Your task to perform on an android device: Go to Wikipedia Image 0: 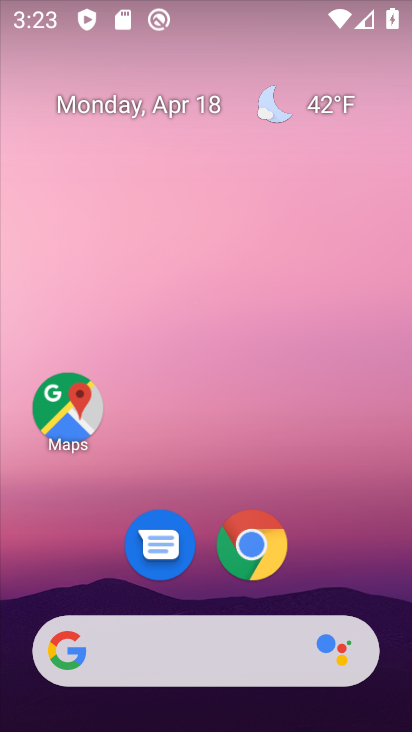
Step 0: drag from (307, 572) to (296, 97)
Your task to perform on an android device: Go to Wikipedia Image 1: 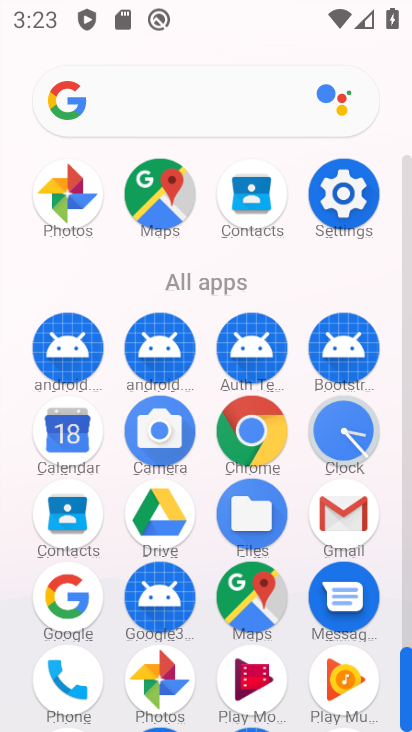
Step 1: click (249, 436)
Your task to perform on an android device: Go to Wikipedia Image 2: 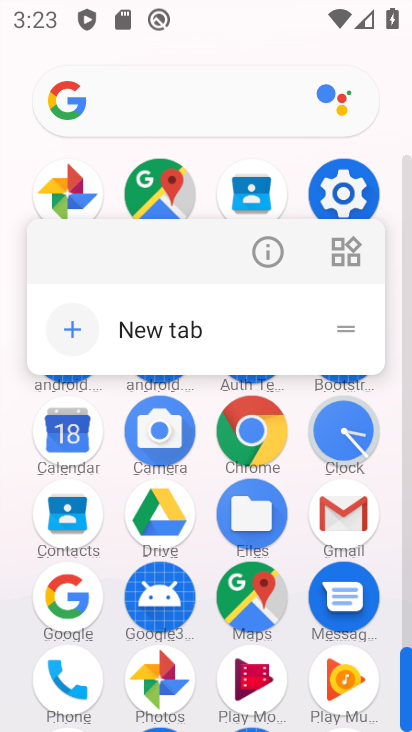
Step 2: click (248, 436)
Your task to perform on an android device: Go to Wikipedia Image 3: 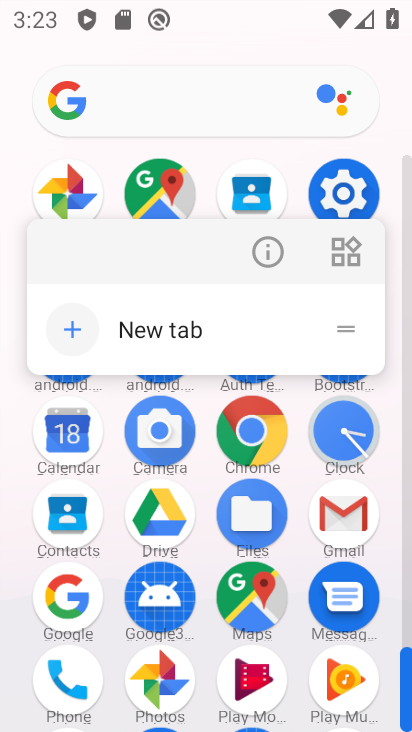
Step 3: click (248, 436)
Your task to perform on an android device: Go to Wikipedia Image 4: 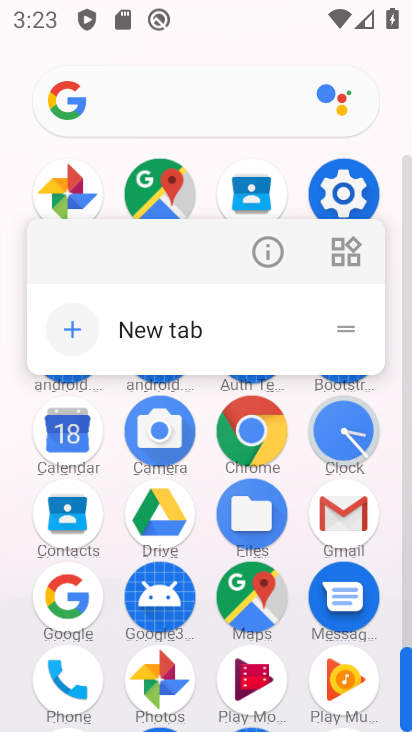
Step 4: click (273, 437)
Your task to perform on an android device: Go to Wikipedia Image 5: 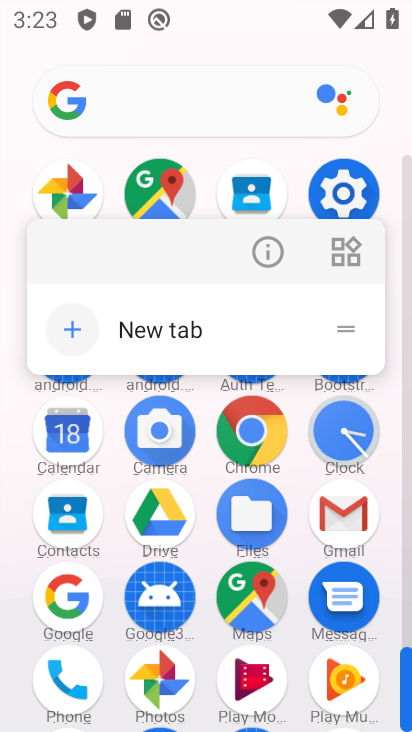
Step 5: click (254, 435)
Your task to perform on an android device: Go to Wikipedia Image 6: 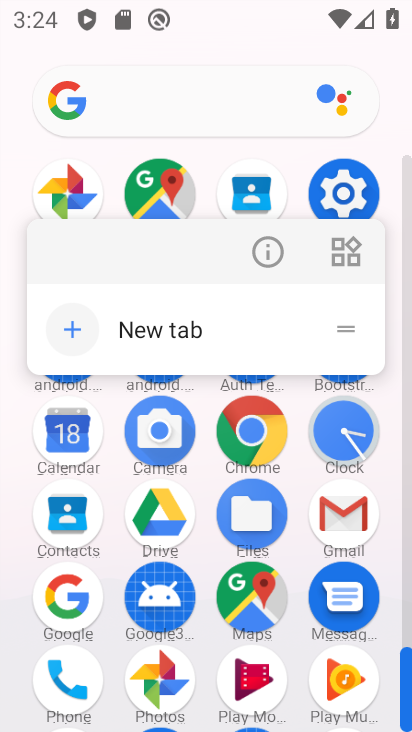
Step 6: click (240, 419)
Your task to perform on an android device: Go to Wikipedia Image 7: 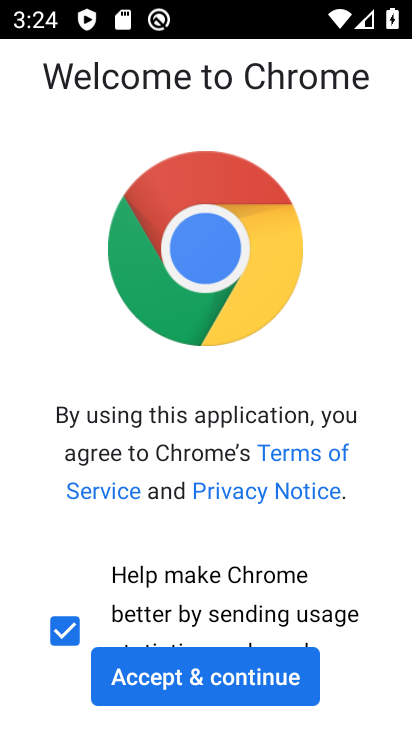
Step 7: click (247, 690)
Your task to perform on an android device: Go to Wikipedia Image 8: 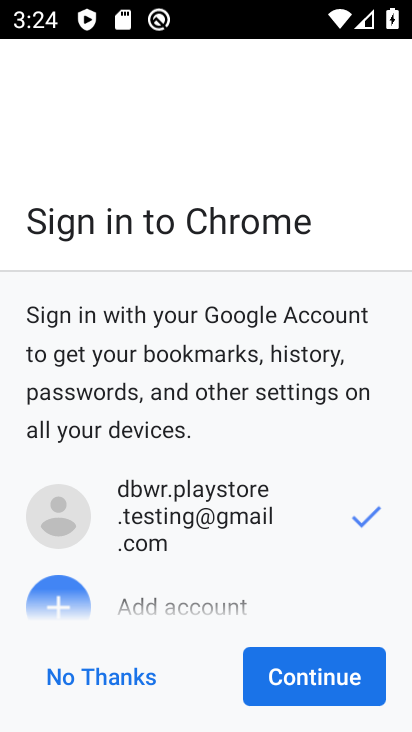
Step 8: click (275, 681)
Your task to perform on an android device: Go to Wikipedia Image 9: 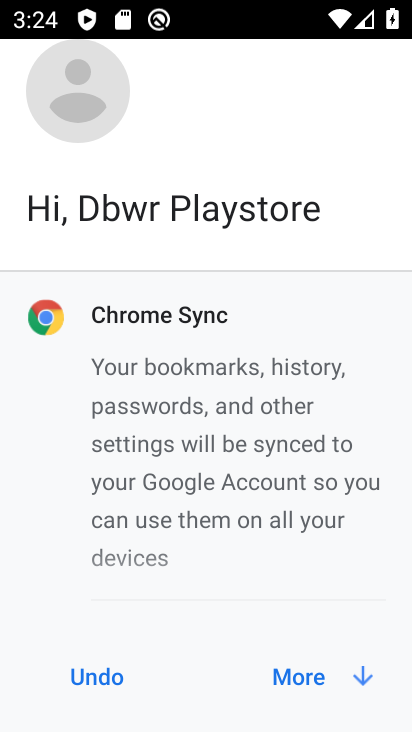
Step 9: click (300, 673)
Your task to perform on an android device: Go to Wikipedia Image 10: 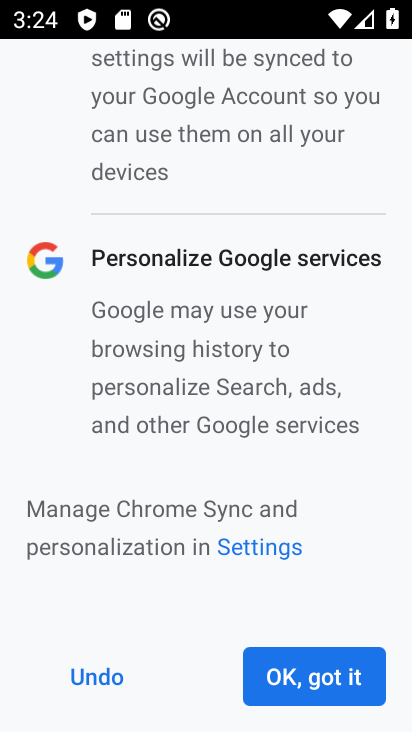
Step 10: click (300, 673)
Your task to perform on an android device: Go to Wikipedia Image 11: 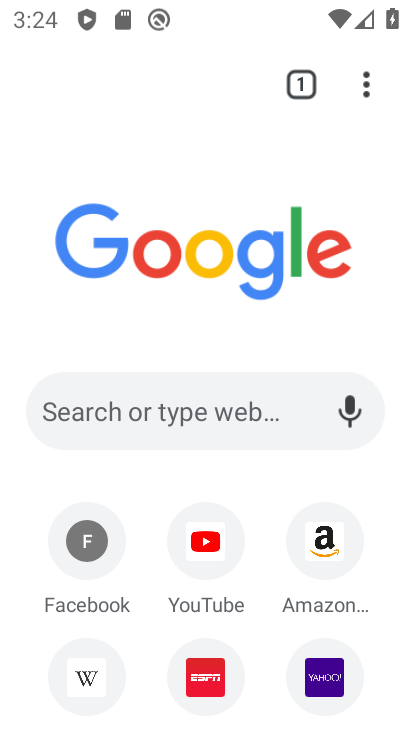
Step 11: drag from (390, 469) to (391, 243)
Your task to perform on an android device: Go to Wikipedia Image 12: 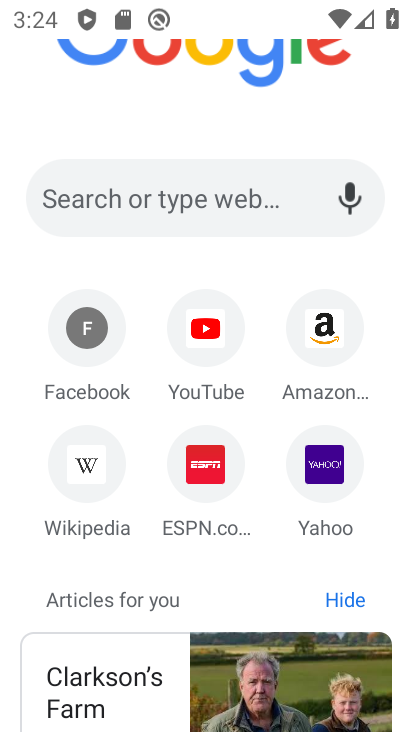
Step 12: click (91, 486)
Your task to perform on an android device: Go to Wikipedia Image 13: 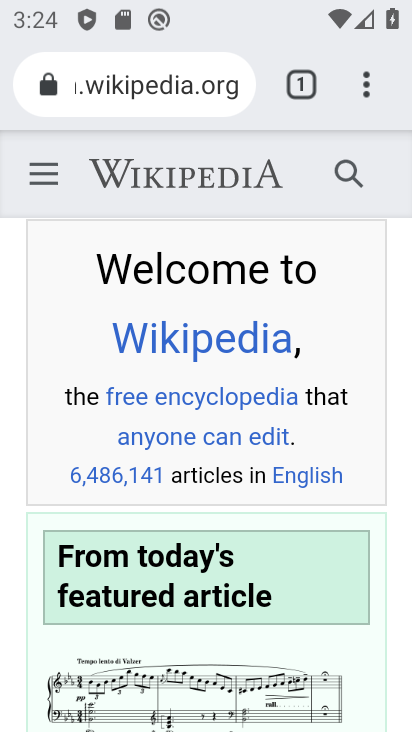
Step 13: task complete